Your task to perform on an android device: Check the weather Image 0: 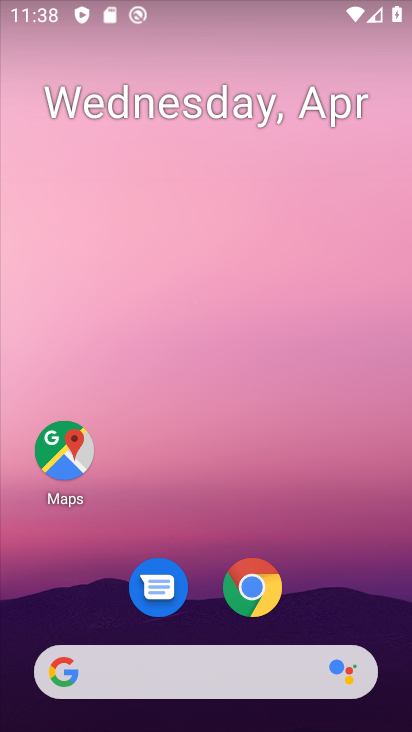
Step 0: click (194, 669)
Your task to perform on an android device: Check the weather Image 1: 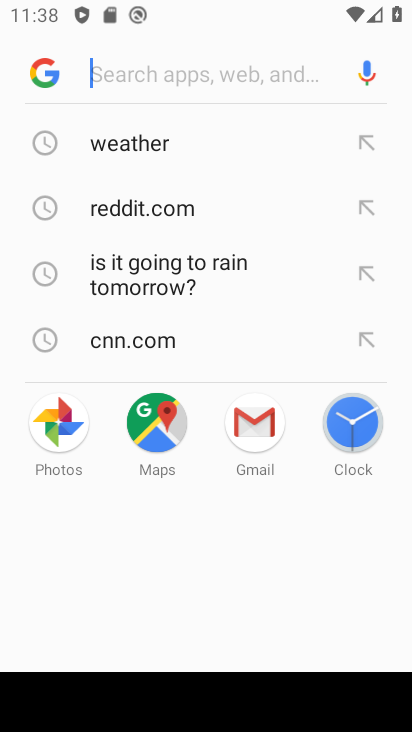
Step 1: click (104, 144)
Your task to perform on an android device: Check the weather Image 2: 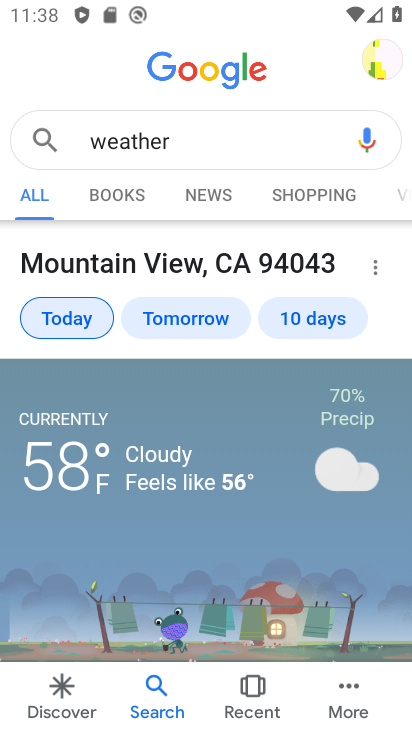
Step 2: task complete